Your task to perform on an android device: Open display settings Image 0: 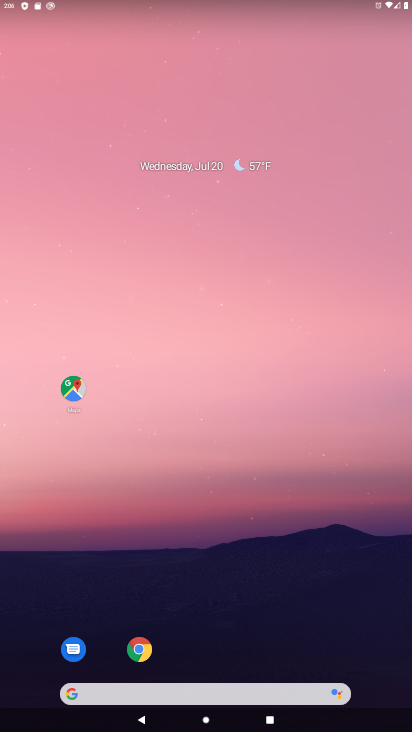
Step 0: drag from (199, 655) to (178, 192)
Your task to perform on an android device: Open display settings Image 1: 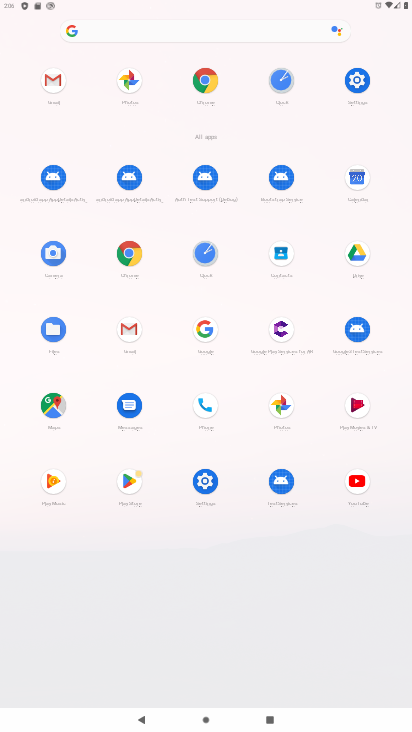
Step 1: click (199, 480)
Your task to perform on an android device: Open display settings Image 2: 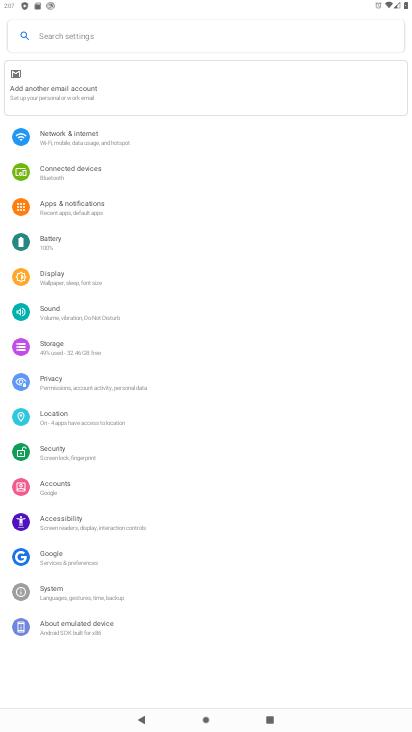
Step 2: click (81, 283)
Your task to perform on an android device: Open display settings Image 3: 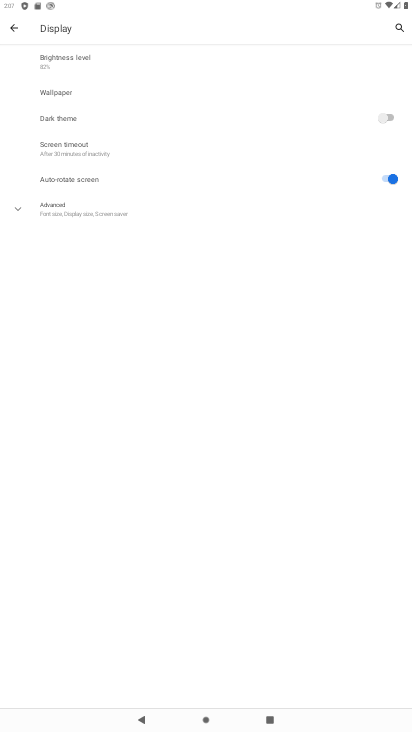
Step 3: task complete